Your task to perform on an android device: Search for usb-c on bestbuy.com, select the first entry, add it to the cart, then select checkout. Image 0: 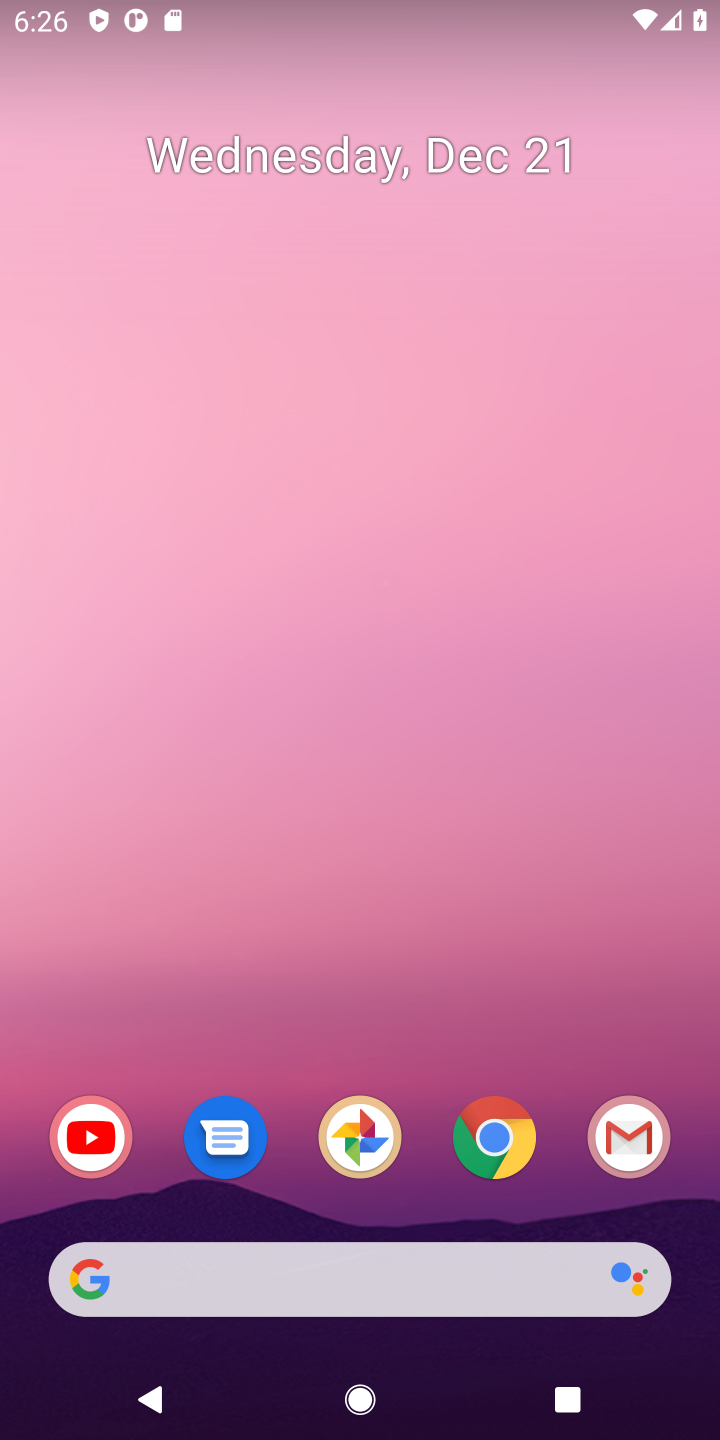
Step 0: click (501, 1153)
Your task to perform on an android device: Search for usb-c on bestbuy.com, select the first entry, add it to the cart, then select checkout. Image 1: 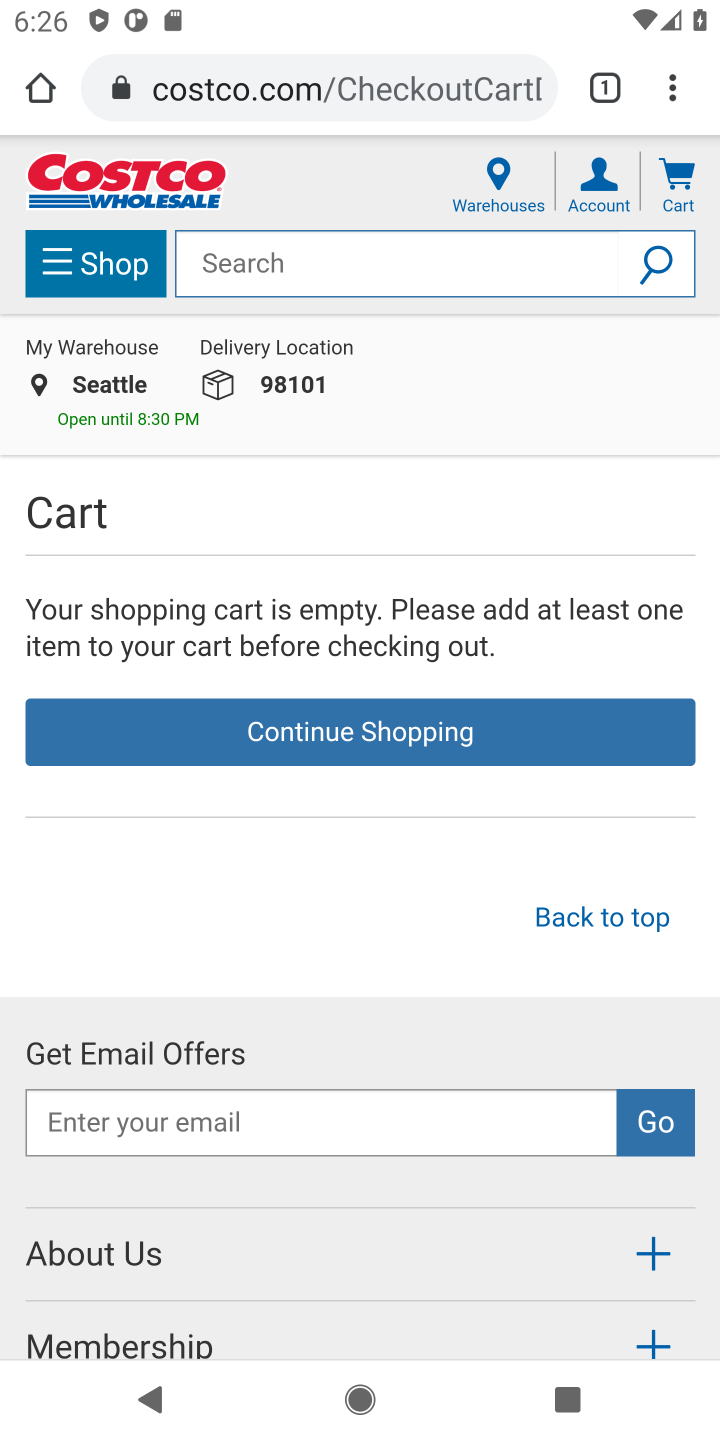
Step 1: click (327, 90)
Your task to perform on an android device: Search for usb-c on bestbuy.com, select the first entry, add it to the cart, then select checkout. Image 2: 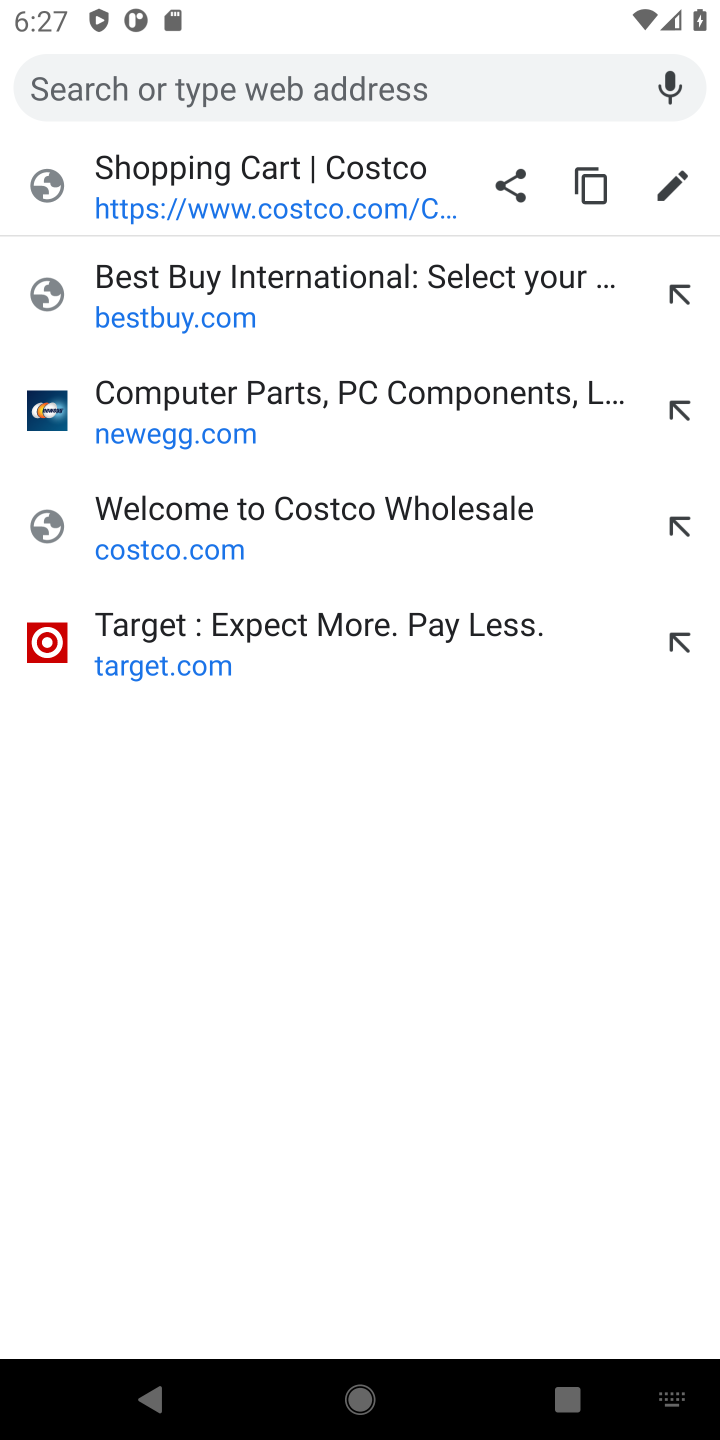
Step 2: click (137, 328)
Your task to perform on an android device: Search for usb-c on bestbuy.com, select the first entry, add it to the cart, then select checkout. Image 3: 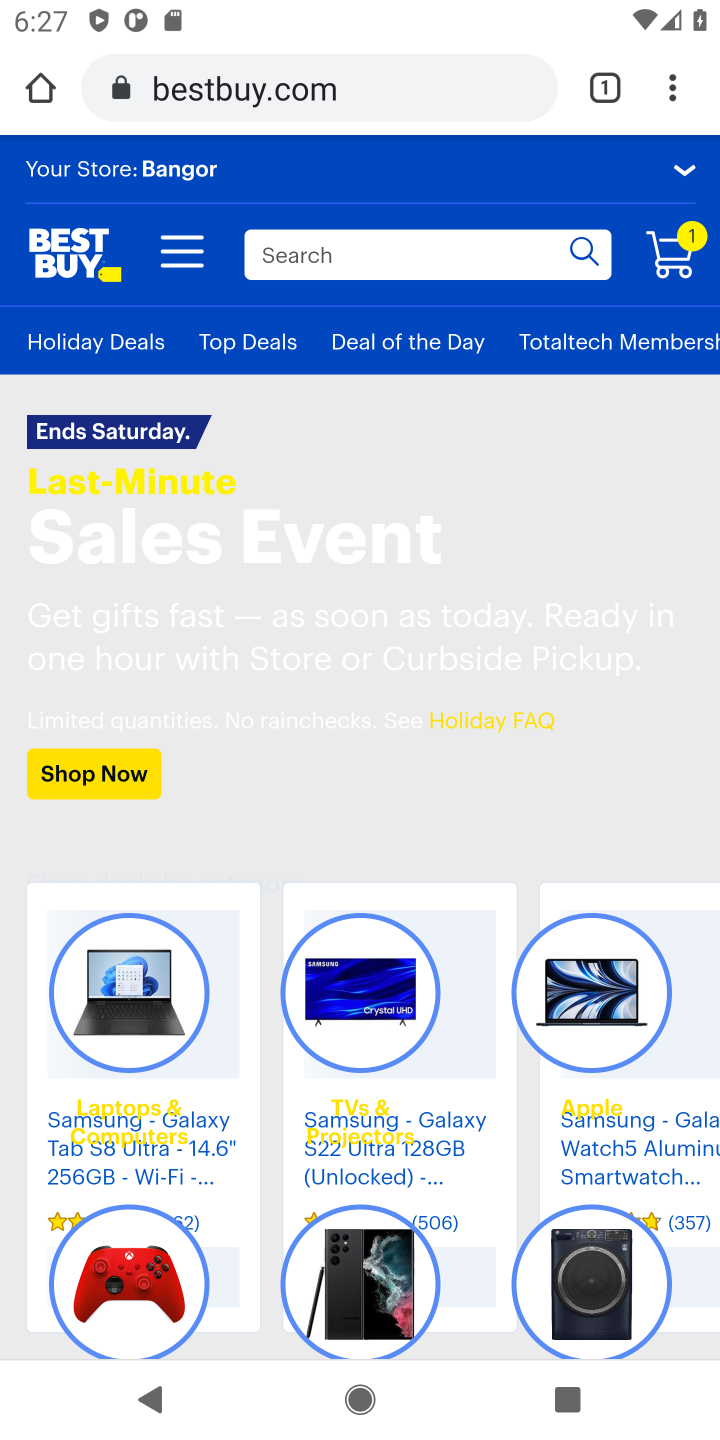
Step 3: click (277, 262)
Your task to perform on an android device: Search for usb-c on bestbuy.com, select the first entry, add it to the cart, then select checkout. Image 4: 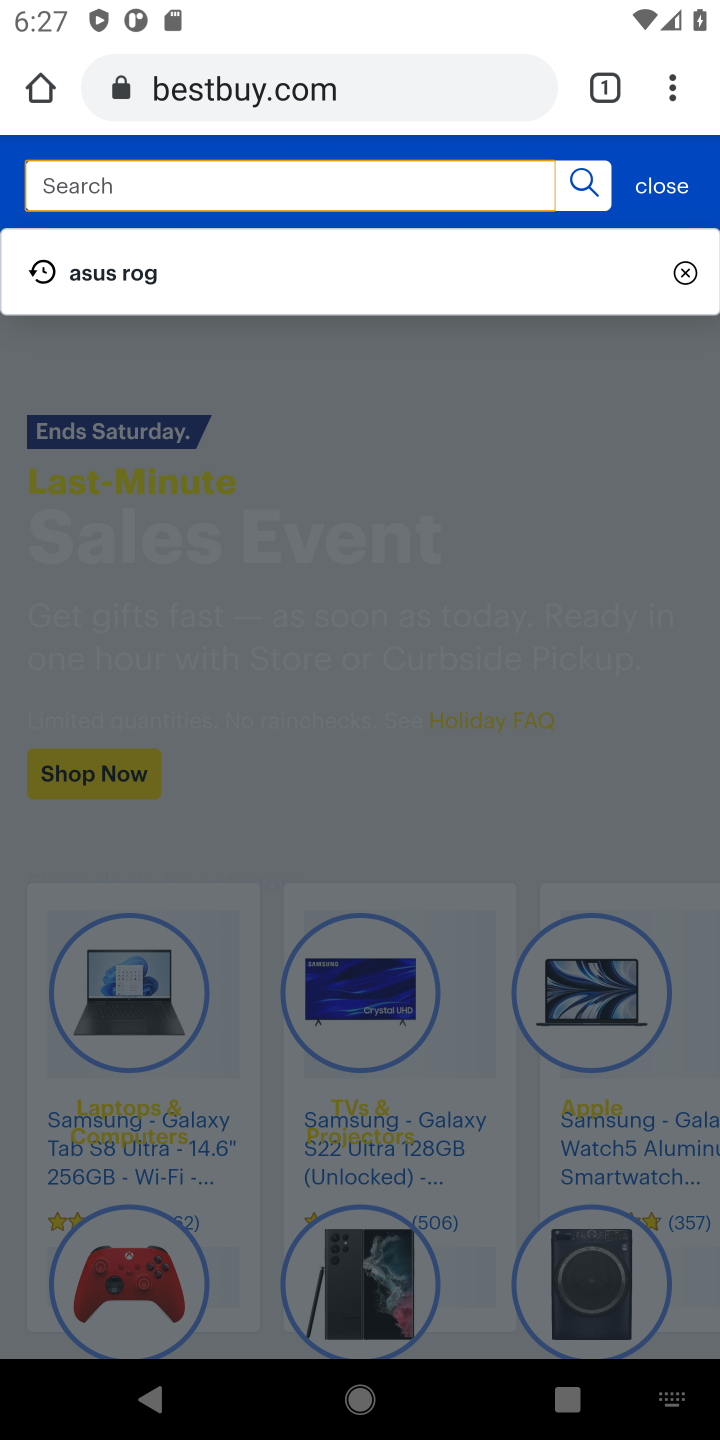
Step 4: type "usb-c"
Your task to perform on an android device: Search for usb-c on bestbuy.com, select the first entry, add it to the cart, then select checkout. Image 5: 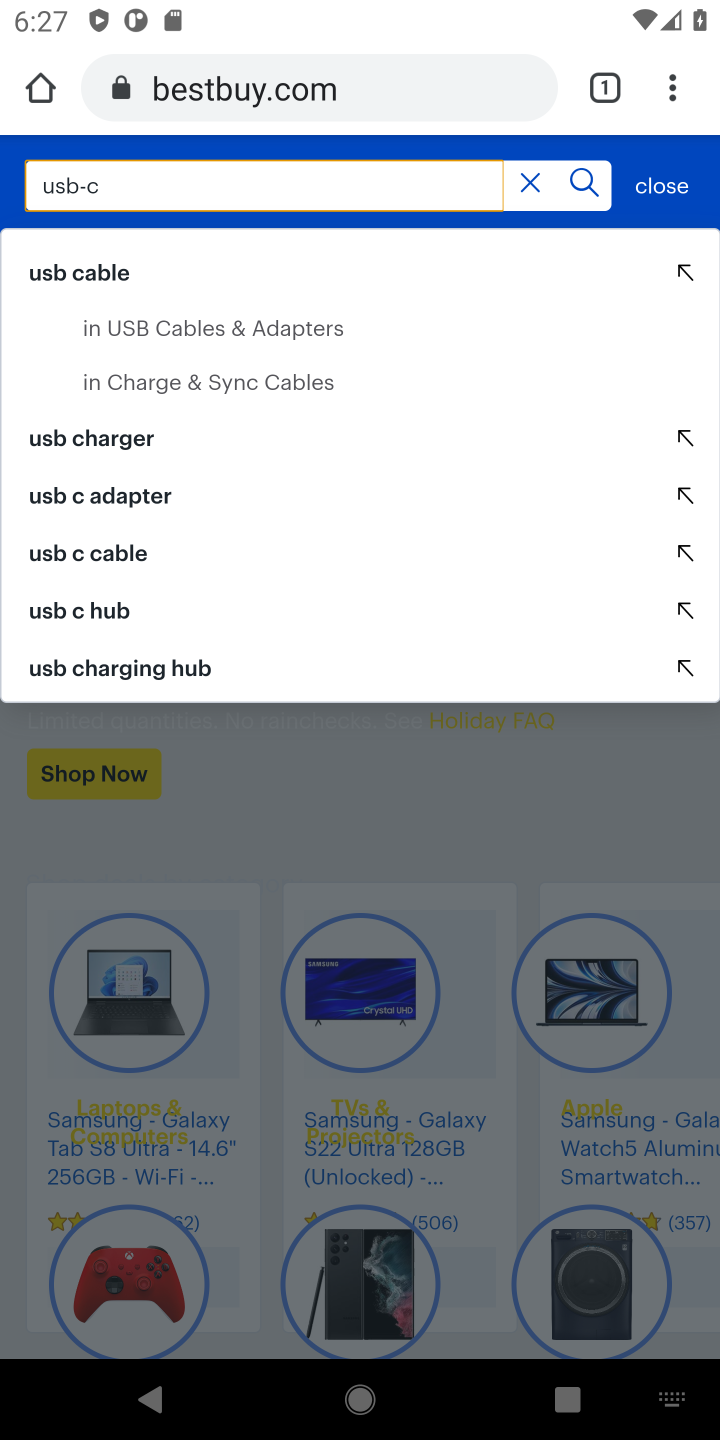
Step 5: click (80, 565)
Your task to perform on an android device: Search for usb-c on bestbuy.com, select the first entry, add it to the cart, then select checkout. Image 6: 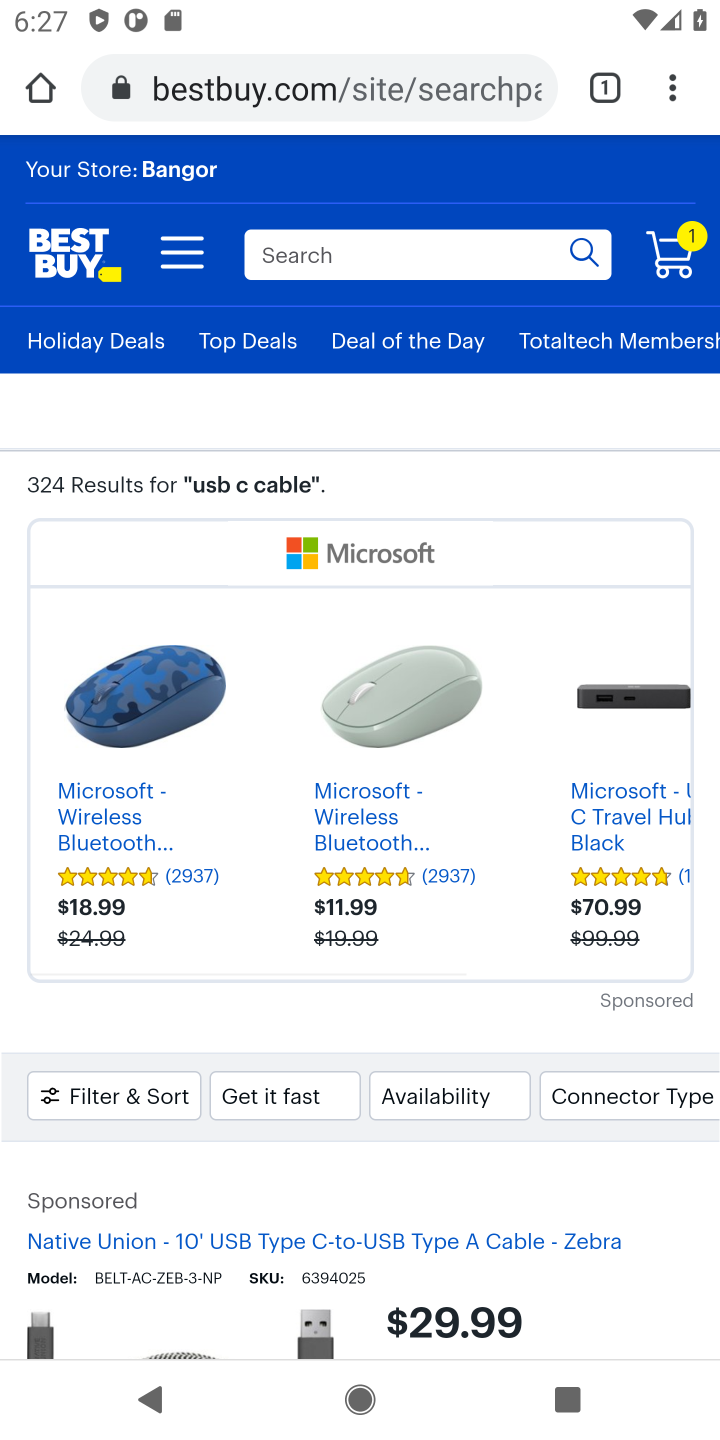
Step 6: drag from (177, 1056) to (193, 490)
Your task to perform on an android device: Search for usb-c on bestbuy.com, select the first entry, add it to the cart, then select checkout. Image 7: 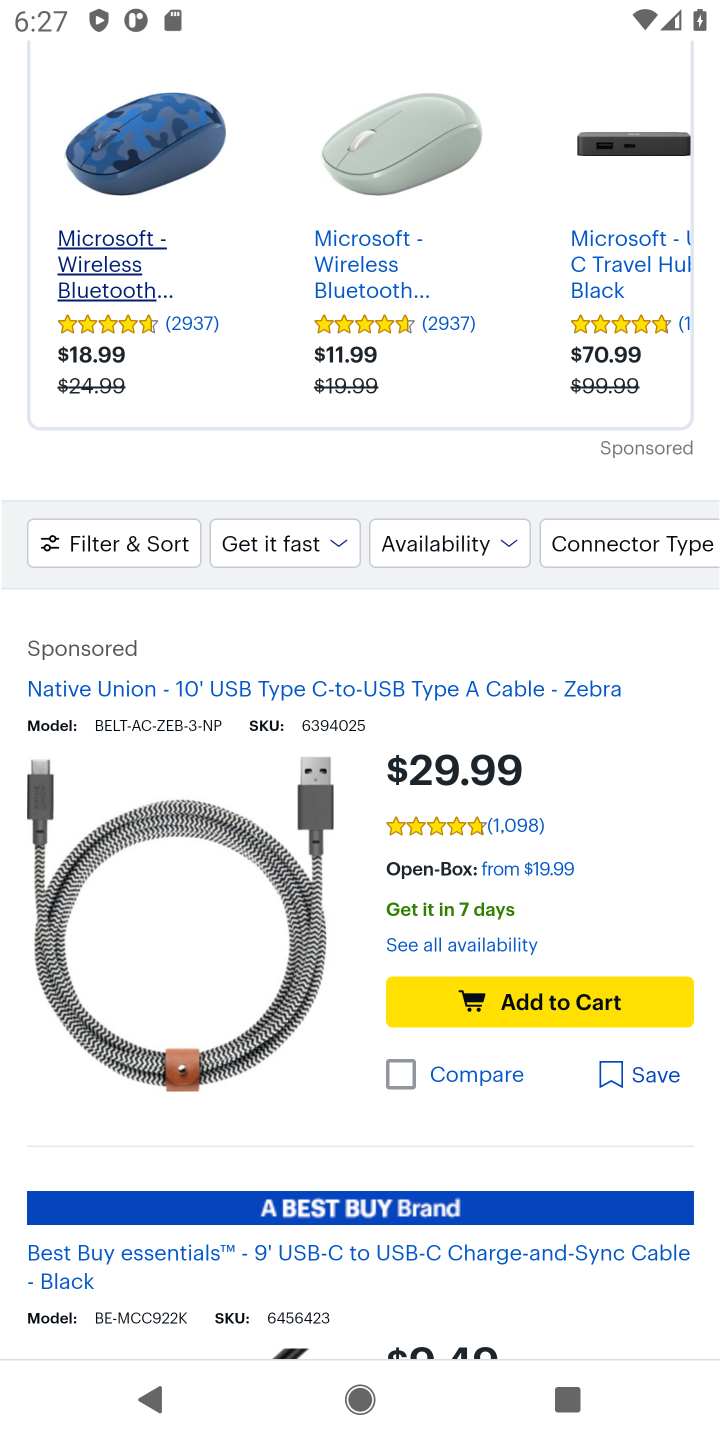
Step 7: click (529, 1023)
Your task to perform on an android device: Search for usb-c on bestbuy.com, select the first entry, add it to the cart, then select checkout. Image 8: 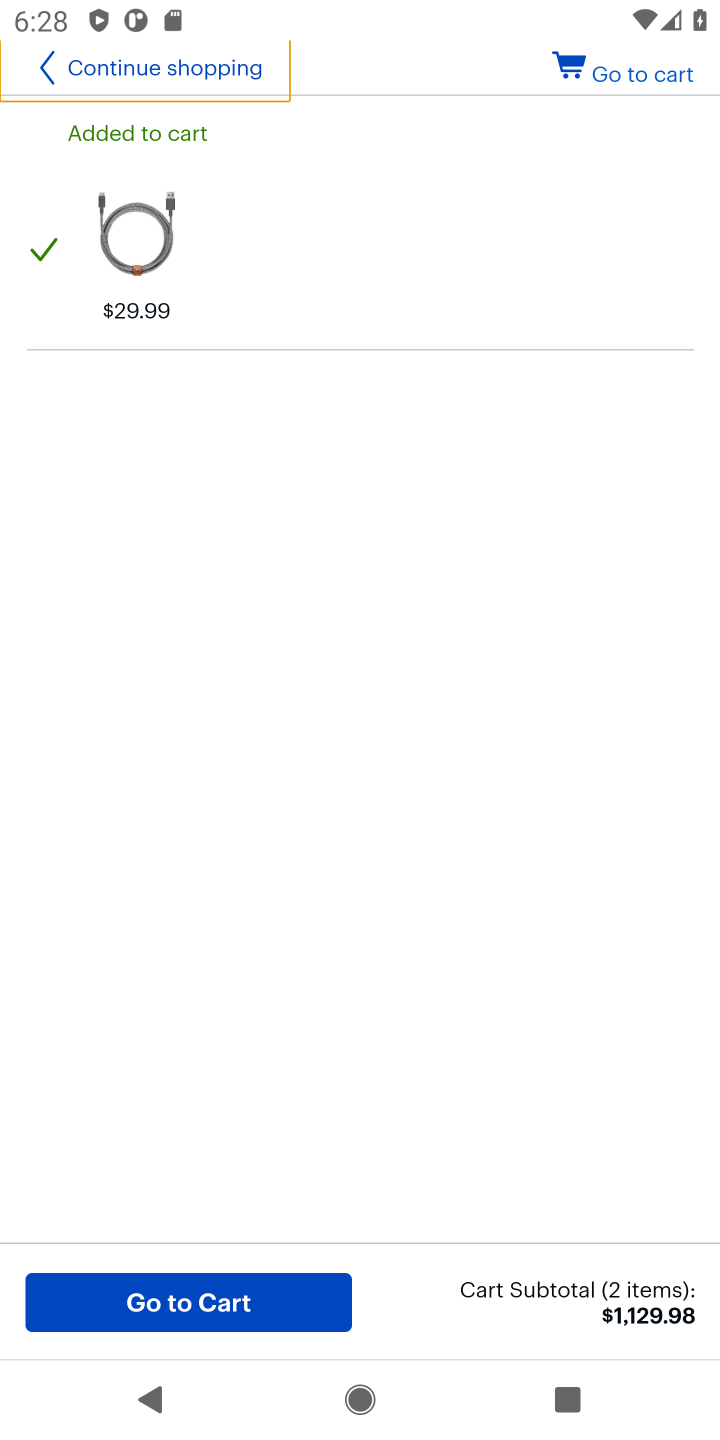
Step 8: click (651, 83)
Your task to perform on an android device: Search for usb-c on bestbuy.com, select the first entry, add it to the cart, then select checkout. Image 9: 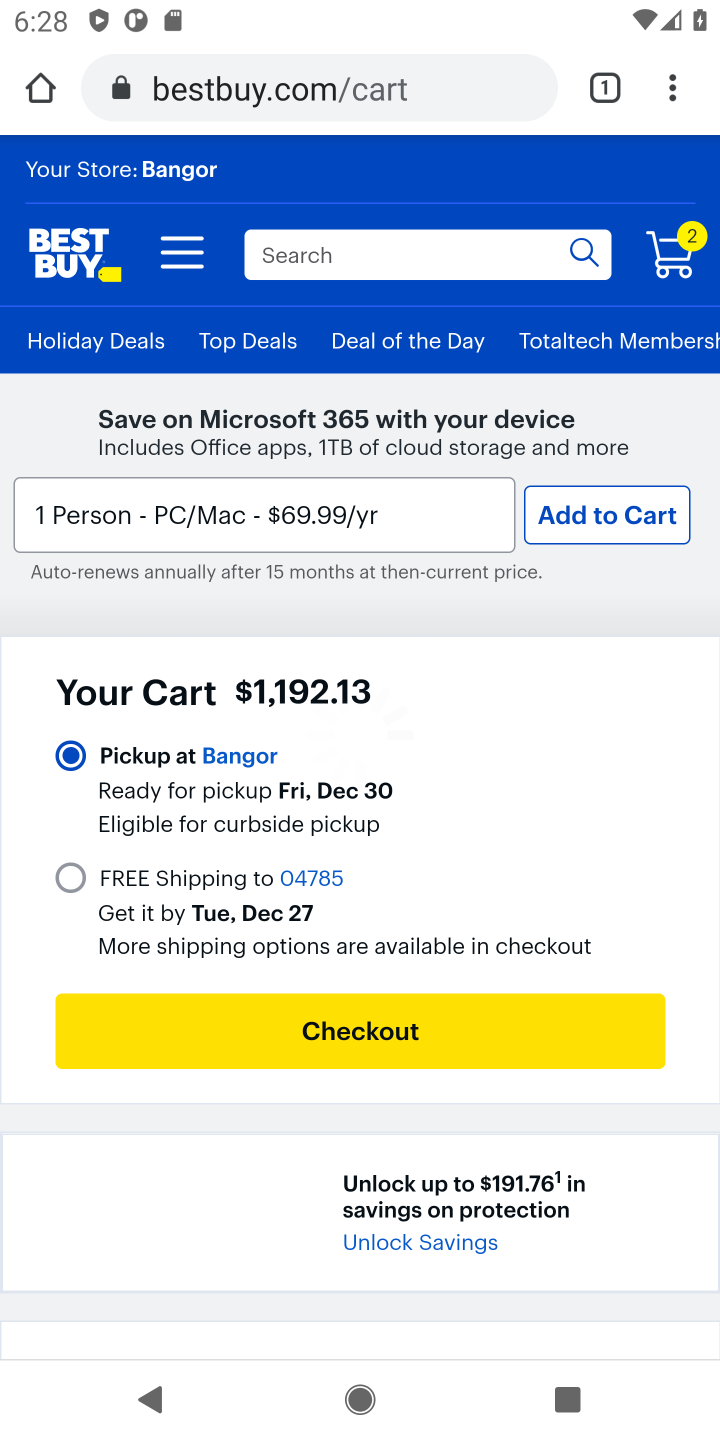
Step 9: click (351, 1027)
Your task to perform on an android device: Search for usb-c on bestbuy.com, select the first entry, add it to the cart, then select checkout. Image 10: 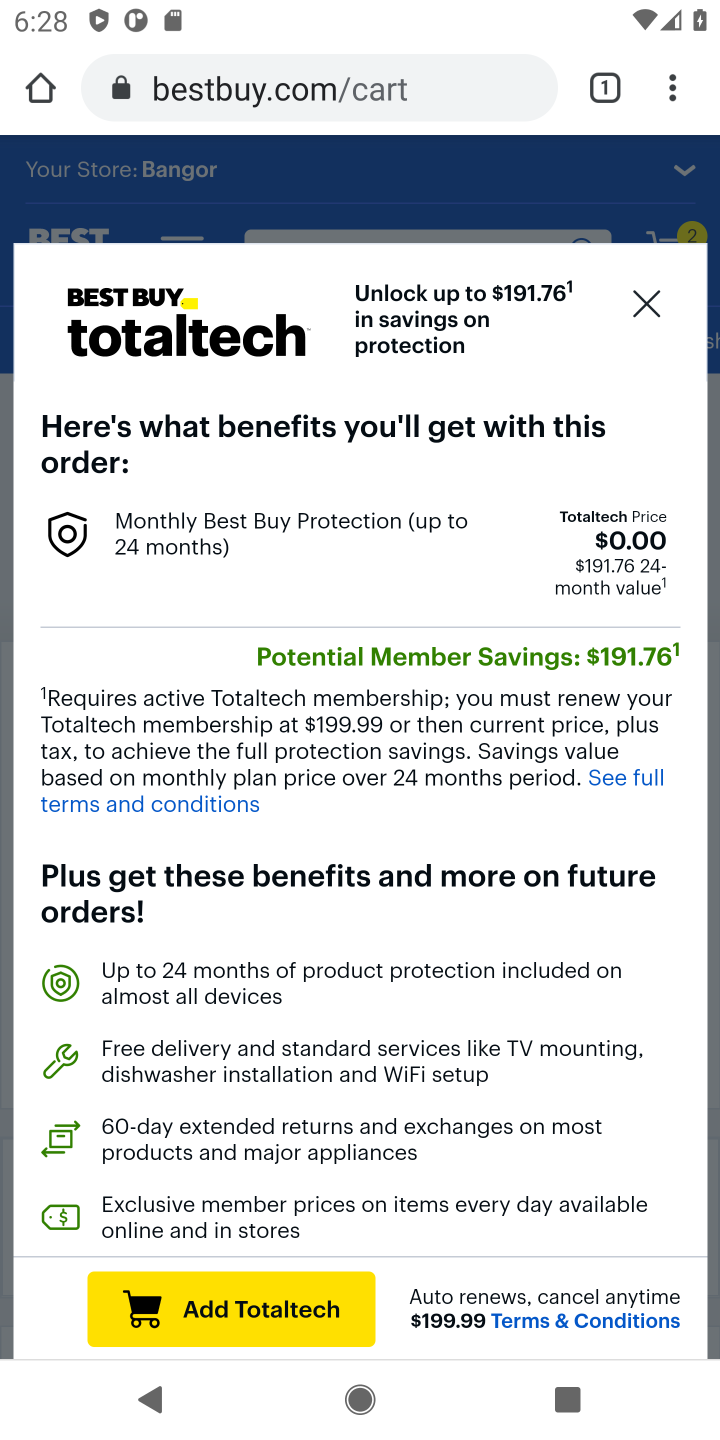
Step 10: click (649, 312)
Your task to perform on an android device: Search for usb-c on bestbuy.com, select the first entry, add it to the cart, then select checkout. Image 11: 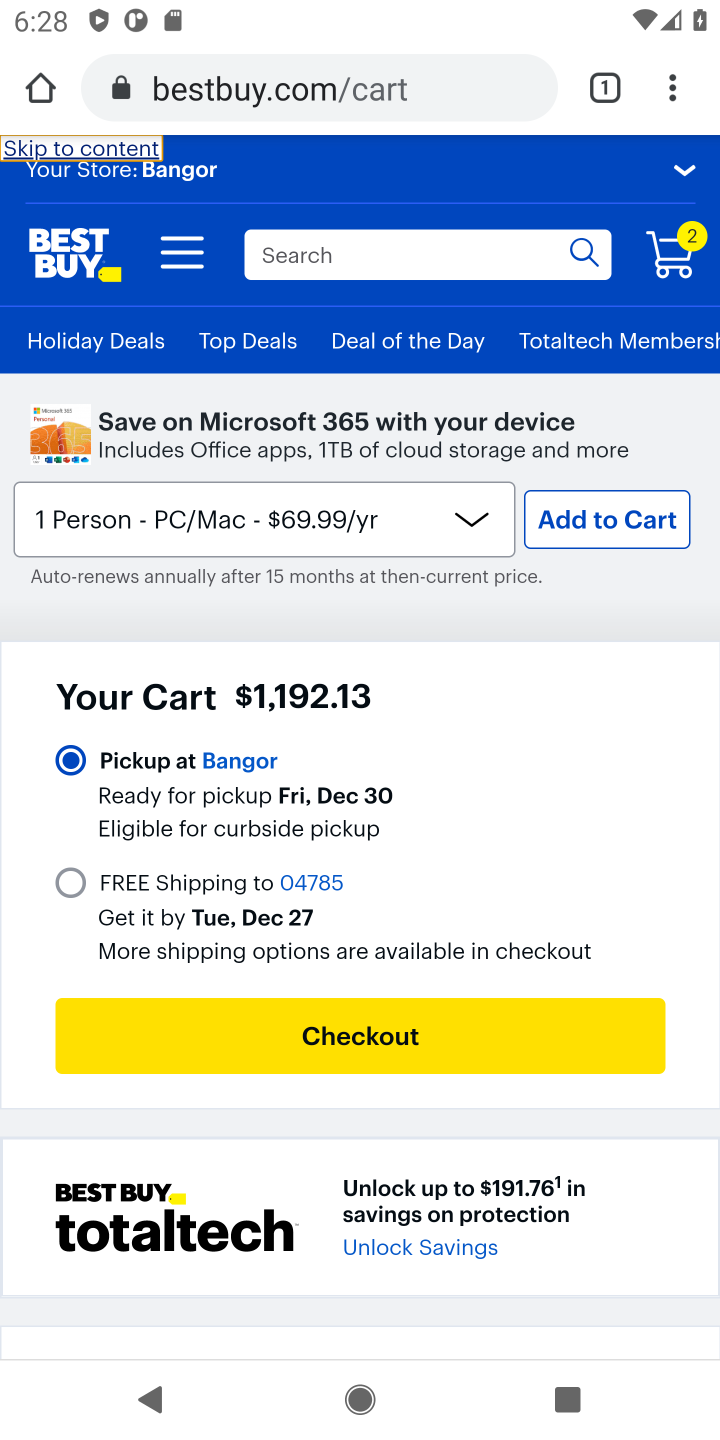
Step 11: click (296, 1040)
Your task to perform on an android device: Search for usb-c on bestbuy.com, select the first entry, add it to the cart, then select checkout. Image 12: 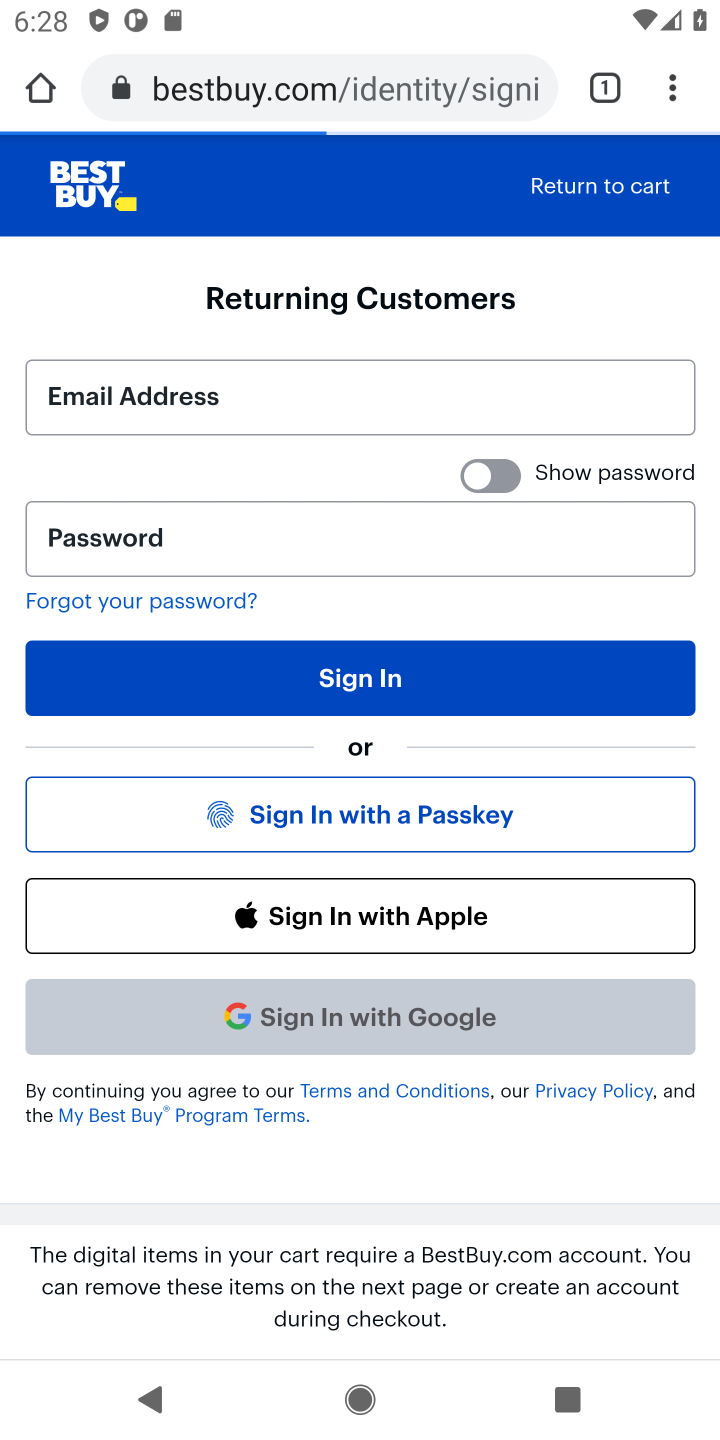
Step 12: task complete